Your task to perform on an android device: remove spam from my inbox in the gmail app Image 0: 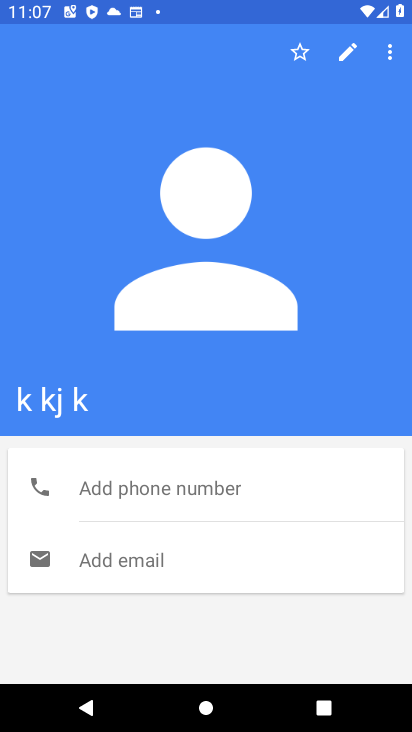
Step 0: press home button
Your task to perform on an android device: remove spam from my inbox in the gmail app Image 1: 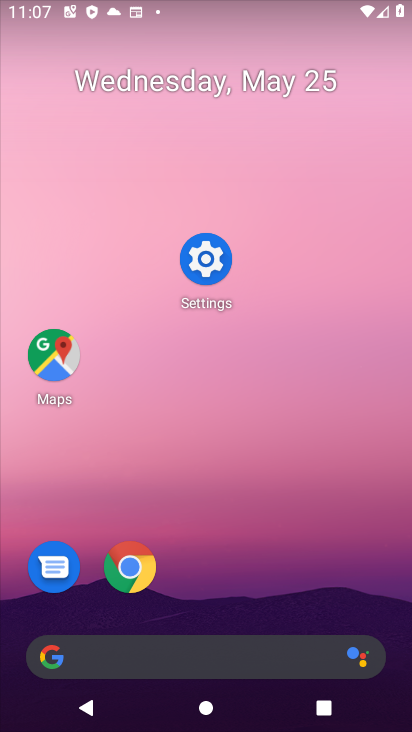
Step 1: drag from (309, 569) to (274, 1)
Your task to perform on an android device: remove spam from my inbox in the gmail app Image 2: 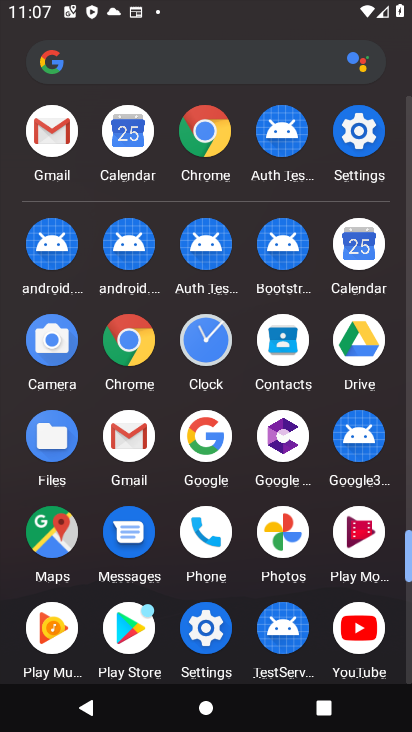
Step 2: click (48, 142)
Your task to perform on an android device: remove spam from my inbox in the gmail app Image 3: 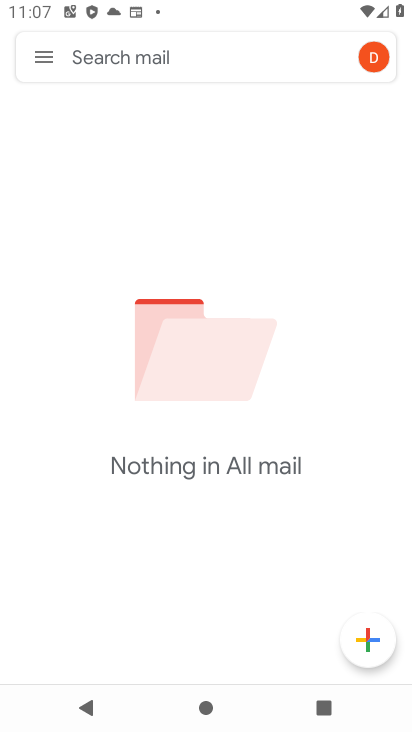
Step 3: click (37, 65)
Your task to perform on an android device: remove spam from my inbox in the gmail app Image 4: 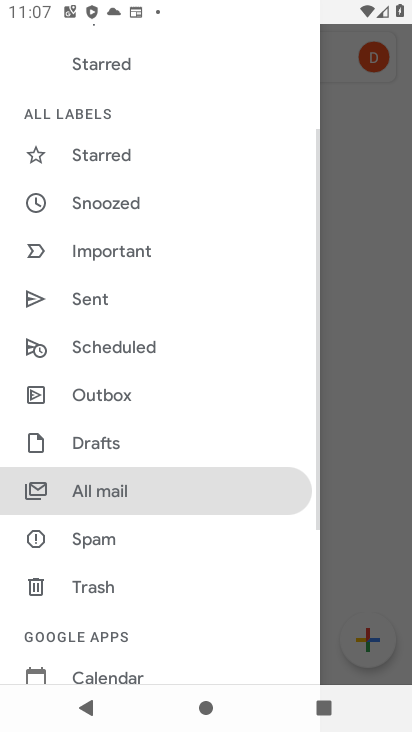
Step 4: drag from (141, 572) to (159, 282)
Your task to perform on an android device: remove spam from my inbox in the gmail app Image 5: 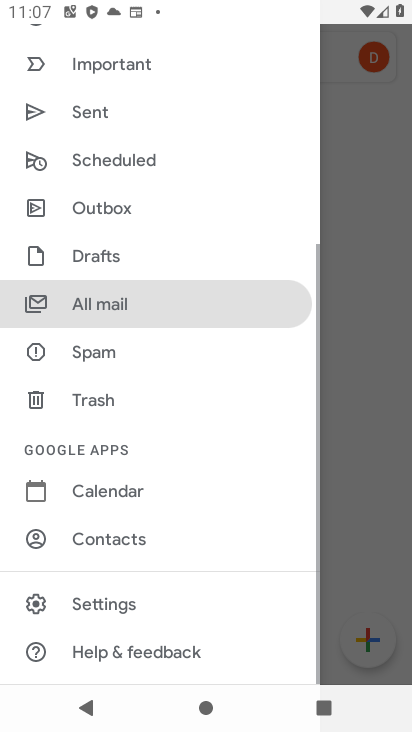
Step 5: click (120, 591)
Your task to perform on an android device: remove spam from my inbox in the gmail app Image 6: 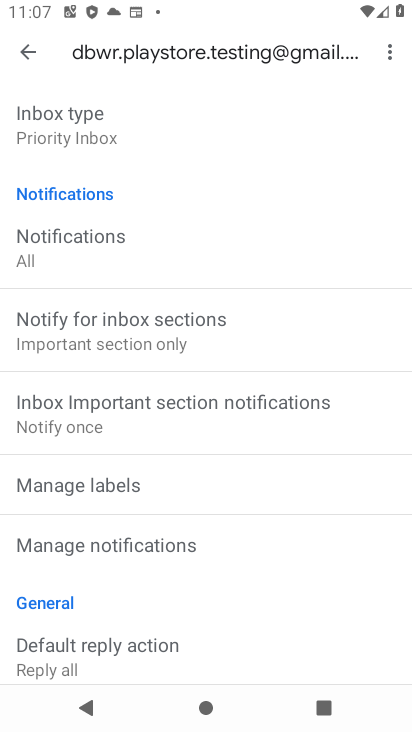
Step 6: task complete